Your task to perform on an android device: change keyboard looks Image 0: 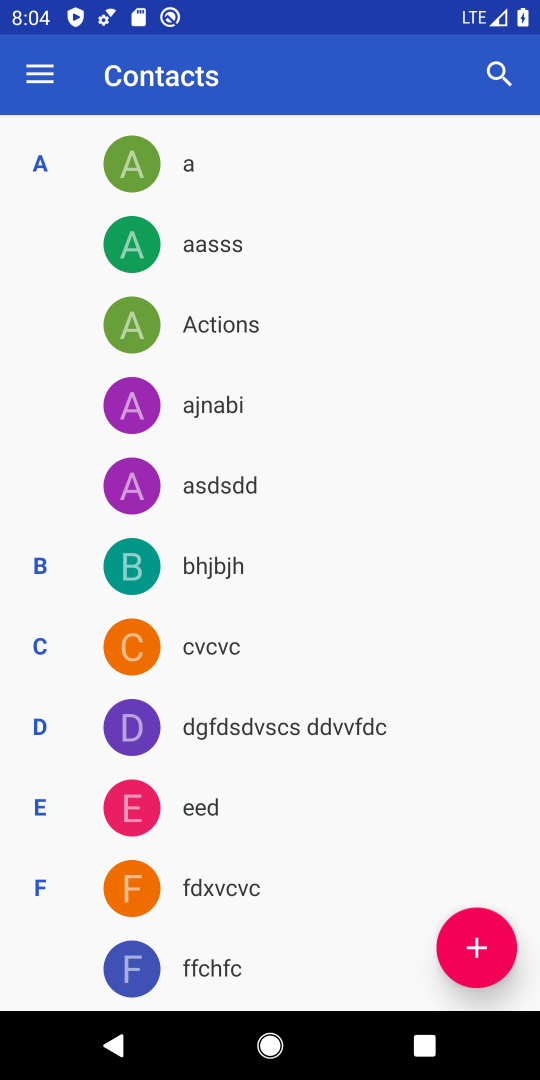
Step 0: press home button
Your task to perform on an android device: change keyboard looks Image 1: 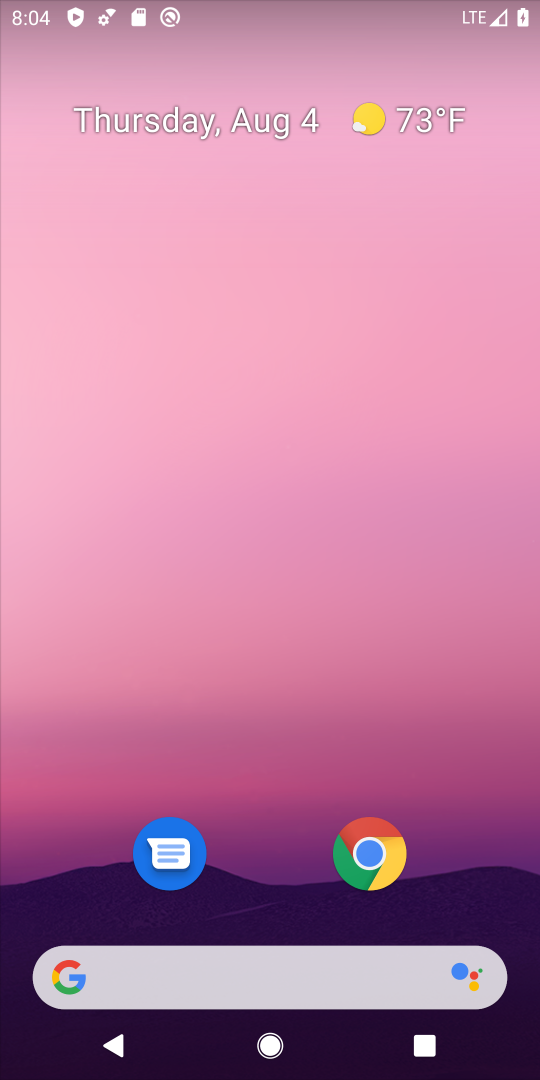
Step 1: drag from (267, 869) to (382, 437)
Your task to perform on an android device: change keyboard looks Image 2: 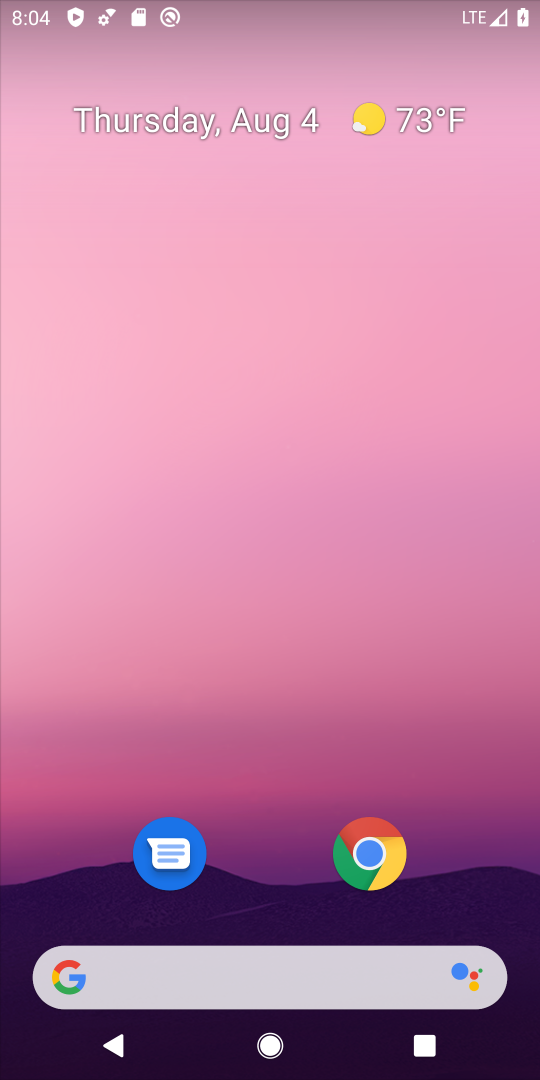
Step 2: drag from (325, 834) to (374, 151)
Your task to perform on an android device: change keyboard looks Image 3: 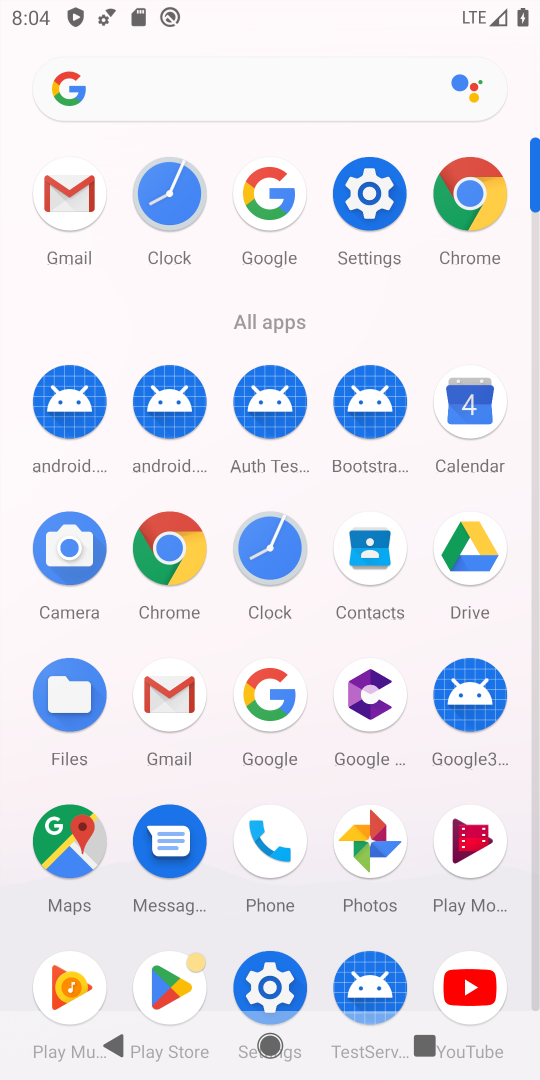
Step 3: click (373, 208)
Your task to perform on an android device: change keyboard looks Image 4: 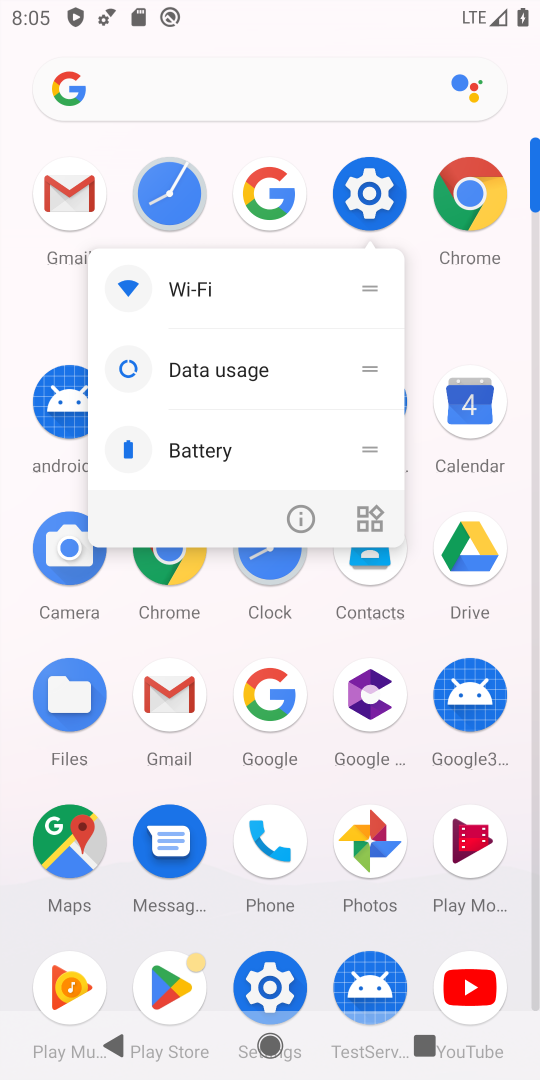
Step 4: click (266, 963)
Your task to perform on an android device: change keyboard looks Image 5: 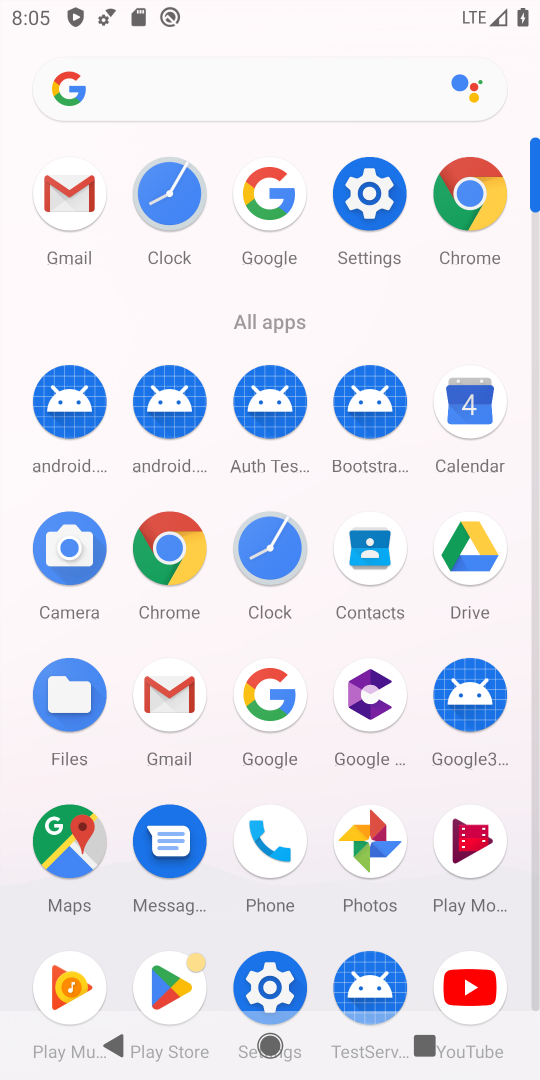
Step 5: click (266, 980)
Your task to perform on an android device: change keyboard looks Image 6: 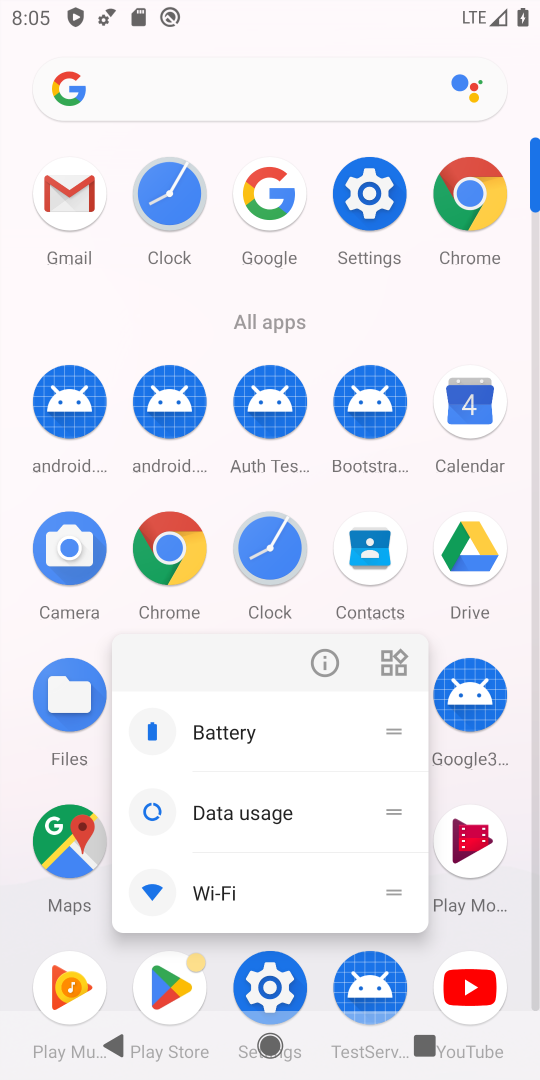
Step 6: click (266, 980)
Your task to perform on an android device: change keyboard looks Image 7: 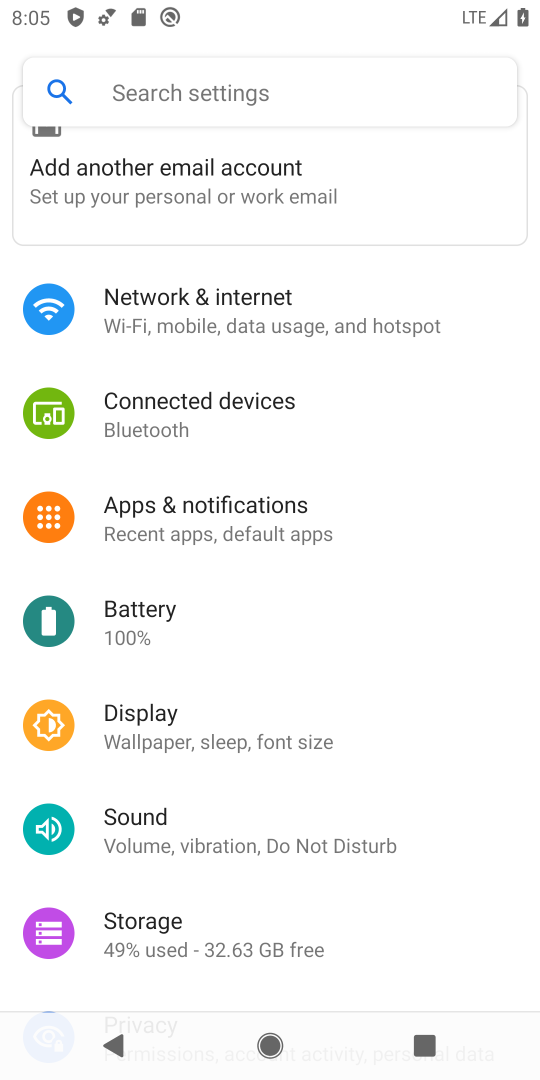
Step 7: drag from (212, 970) to (362, 92)
Your task to perform on an android device: change keyboard looks Image 8: 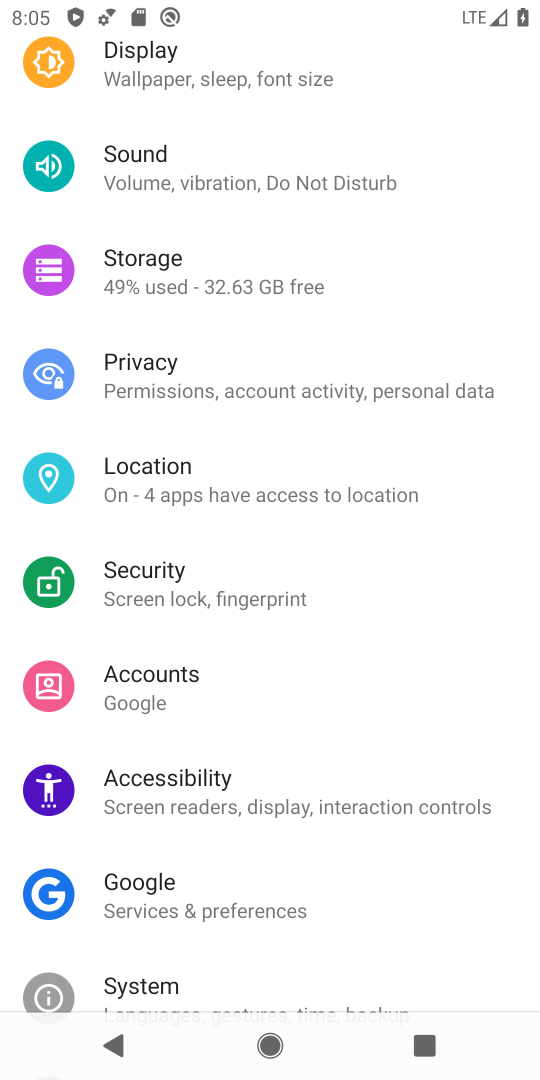
Step 8: click (138, 988)
Your task to perform on an android device: change keyboard looks Image 9: 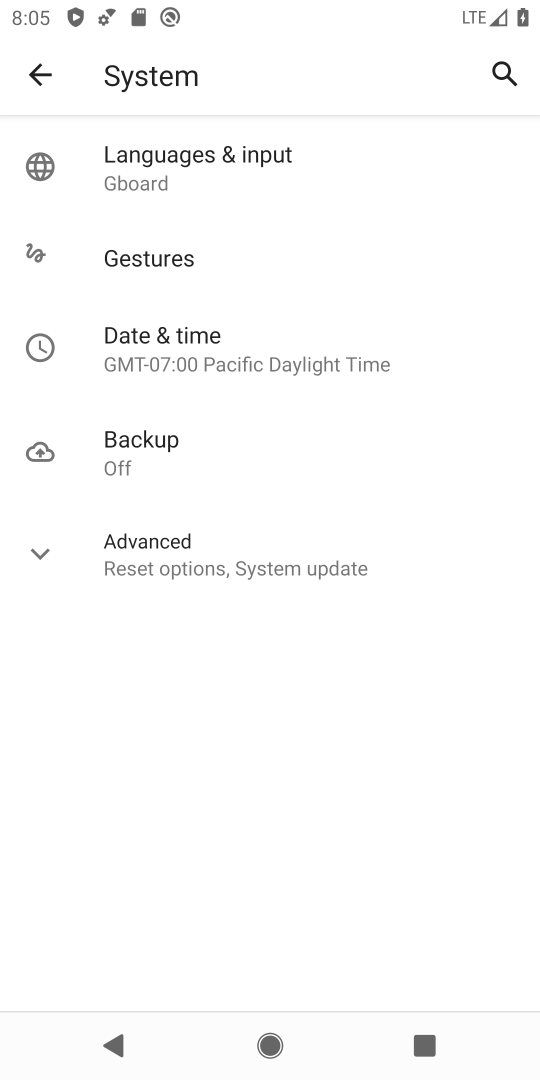
Step 9: click (167, 171)
Your task to perform on an android device: change keyboard looks Image 10: 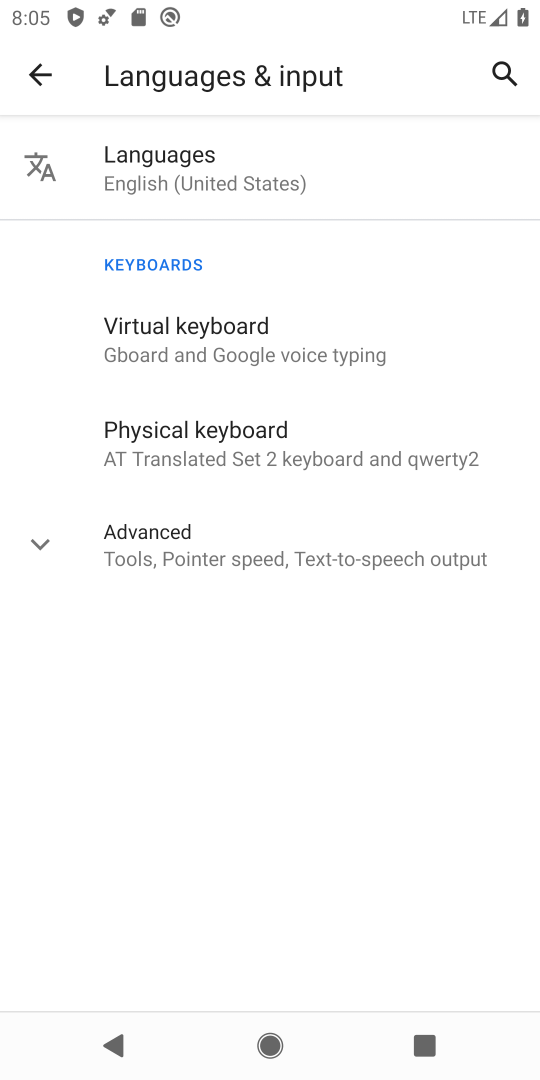
Step 10: click (171, 344)
Your task to perform on an android device: change keyboard looks Image 11: 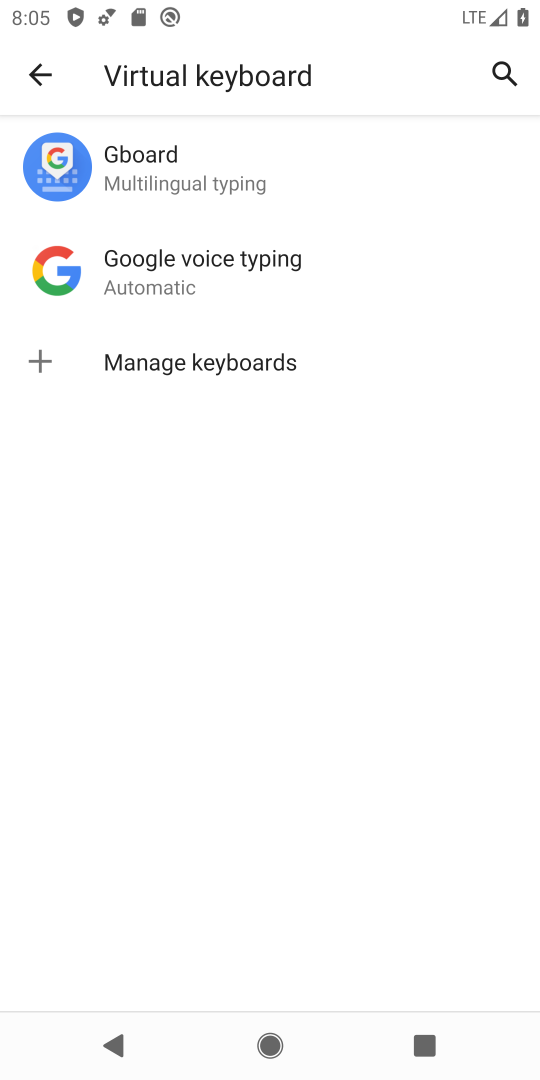
Step 11: click (101, 179)
Your task to perform on an android device: change keyboard looks Image 12: 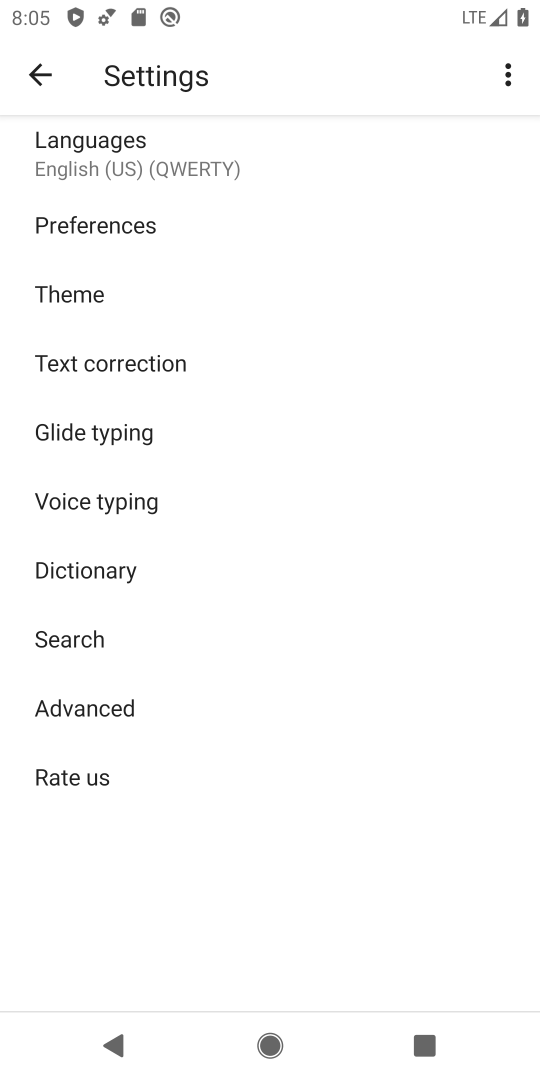
Step 12: drag from (87, 288) to (4, 288)
Your task to perform on an android device: change keyboard looks Image 13: 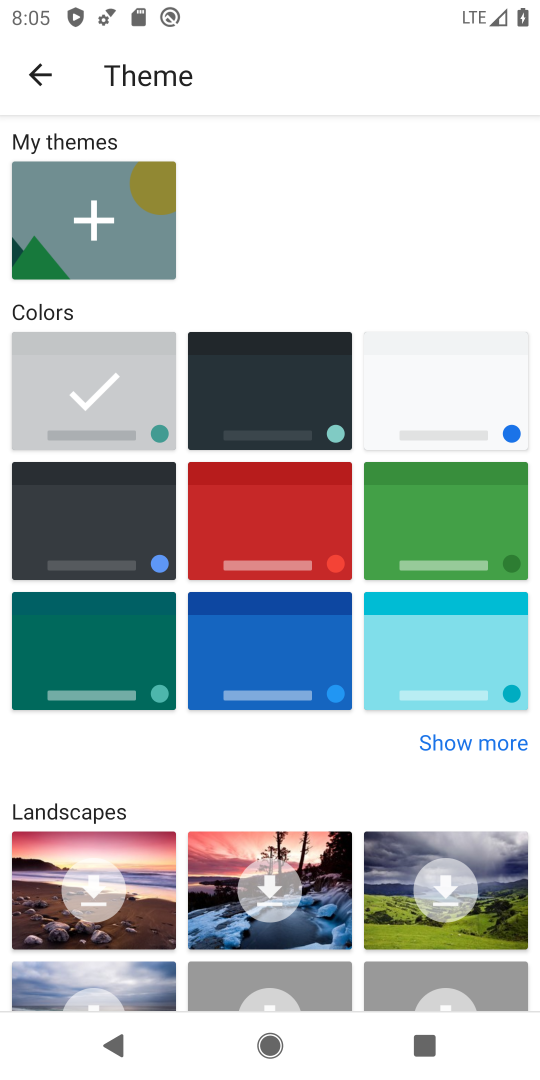
Step 13: click (289, 497)
Your task to perform on an android device: change keyboard looks Image 14: 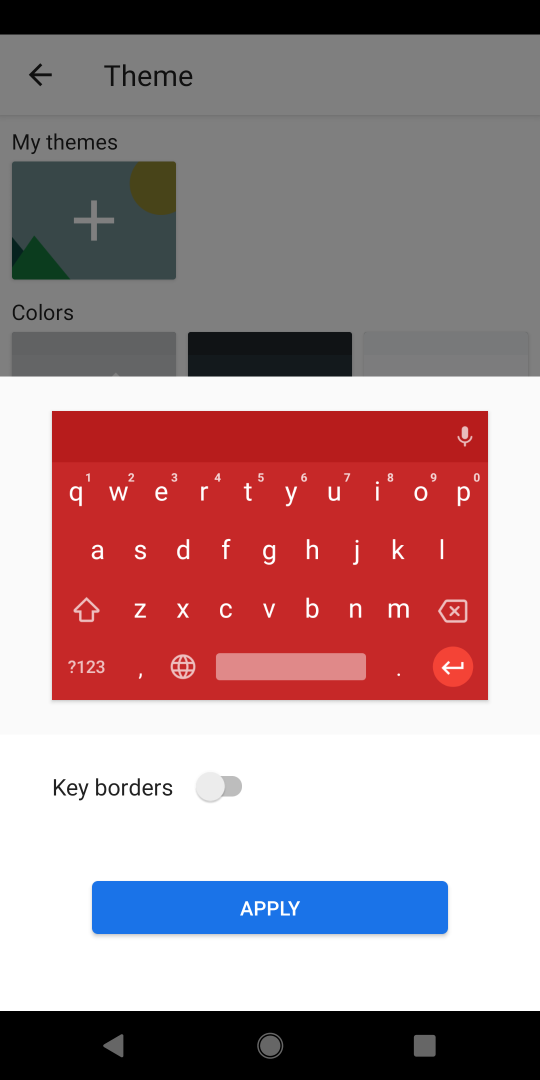
Step 14: click (306, 914)
Your task to perform on an android device: change keyboard looks Image 15: 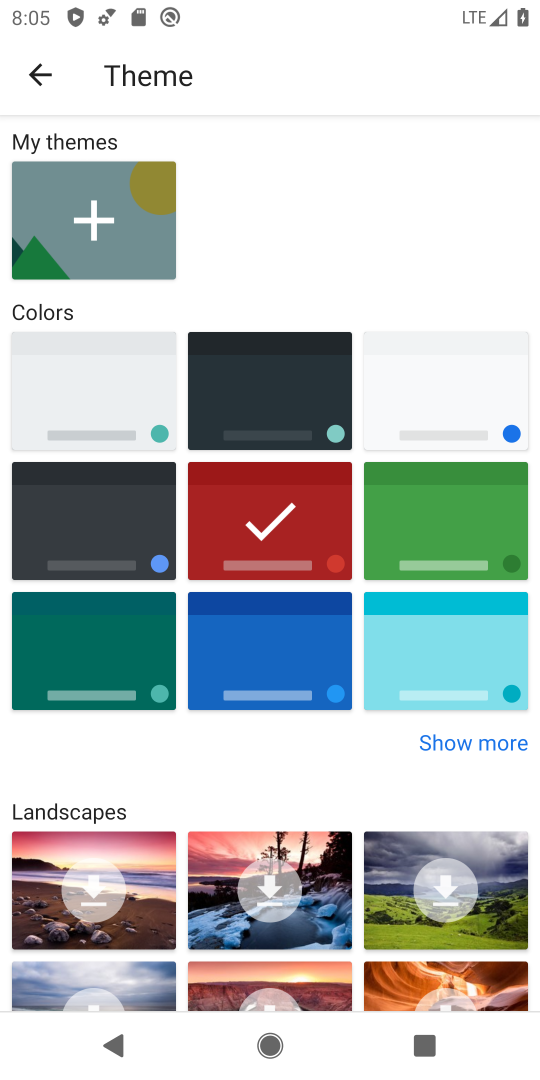
Step 15: task complete